Your task to perform on an android device: Search for pizza restaurants on Maps Image 0: 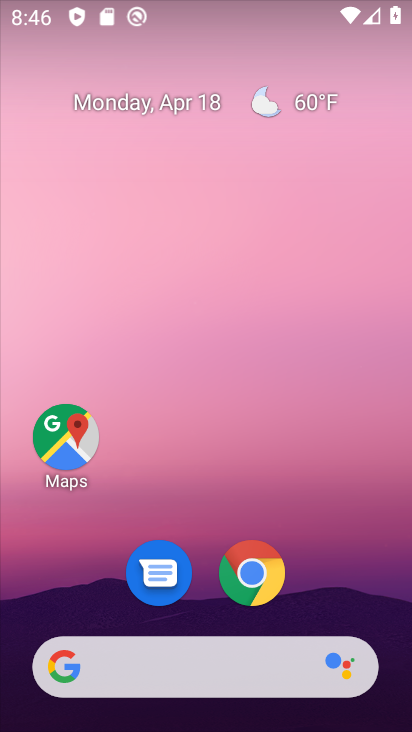
Step 0: click (83, 441)
Your task to perform on an android device: Search for pizza restaurants on Maps Image 1: 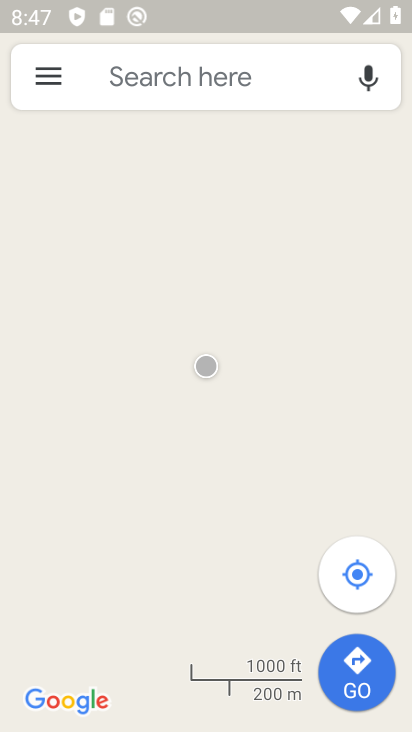
Step 1: click (214, 81)
Your task to perform on an android device: Search for pizza restaurants on Maps Image 2: 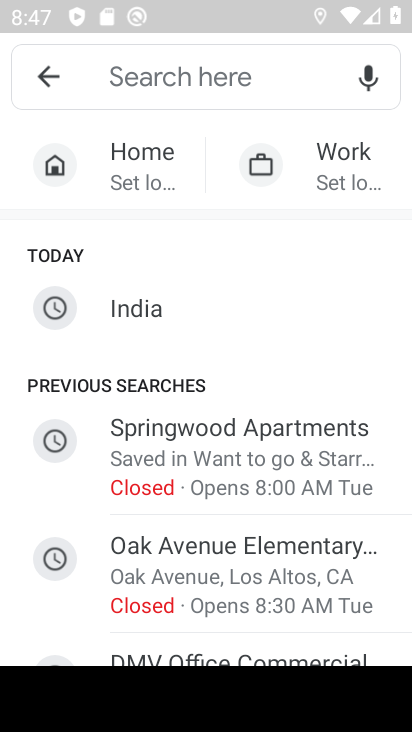
Step 2: type "pizza restaurants"
Your task to perform on an android device: Search for pizza restaurants on Maps Image 3: 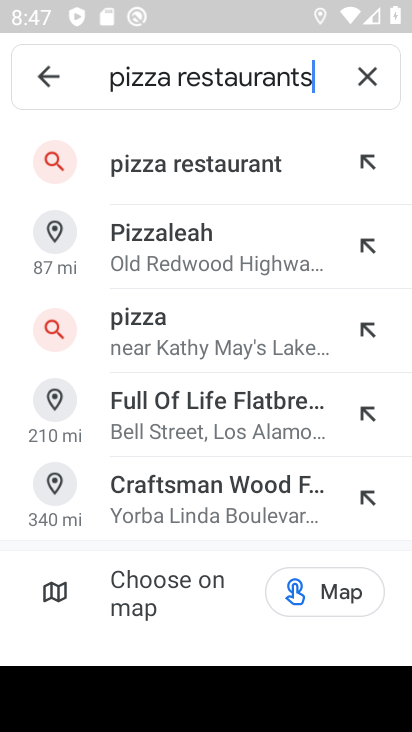
Step 3: click (174, 168)
Your task to perform on an android device: Search for pizza restaurants on Maps Image 4: 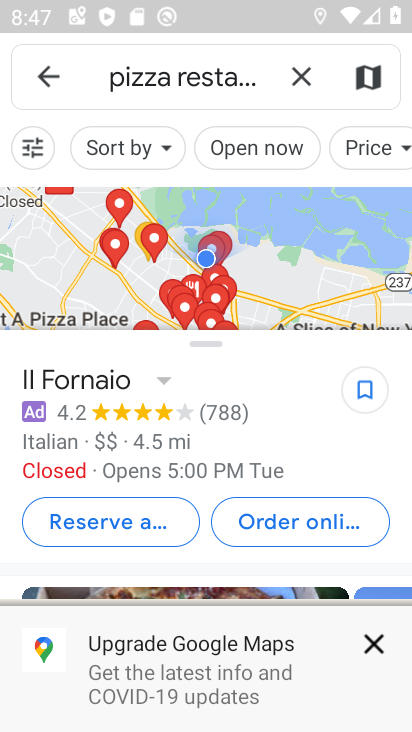
Step 4: task complete